Your task to perform on an android device: open wifi settings Image 0: 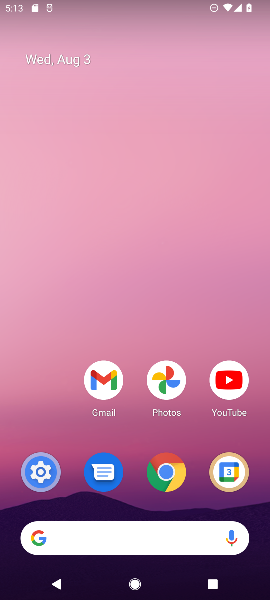
Step 0: drag from (203, 497) to (62, 87)
Your task to perform on an android device: open wifi settings Image 1: 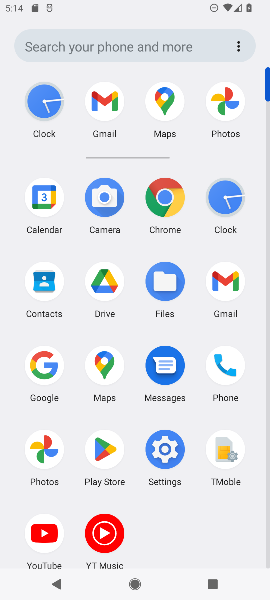
Step 1: click (170, 460)
Your task to perform on an android device: open wifi settings Image 2: 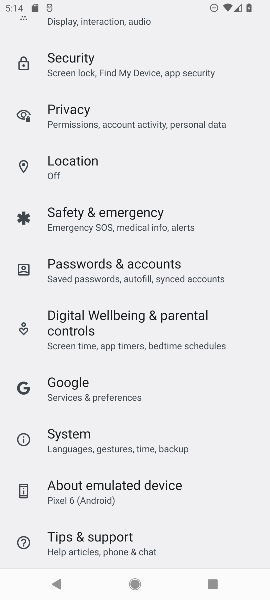
Step 2: drag from (67, 97) to (186, 476)
Your task to perform on an android device: open wifi settings Image 3: 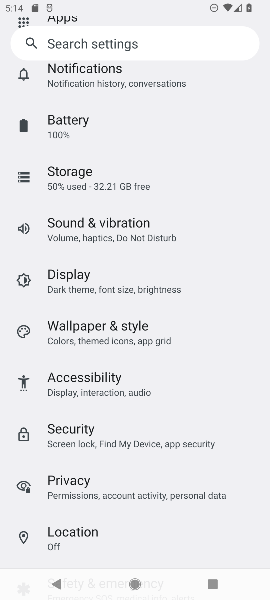
Step 3: drag from (111, 161) to (152, 537)
Your task to perform on an android device: open wifi settings Image 4: 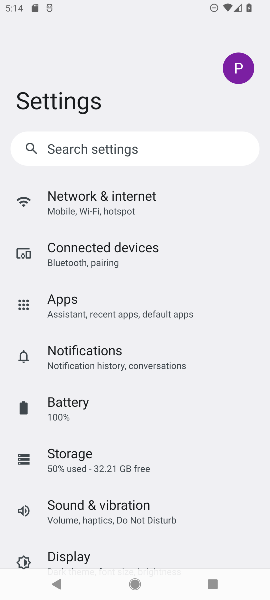
Step 4: click (72, 198)
Your task to perform on an android device: open wifi settings Image 5: 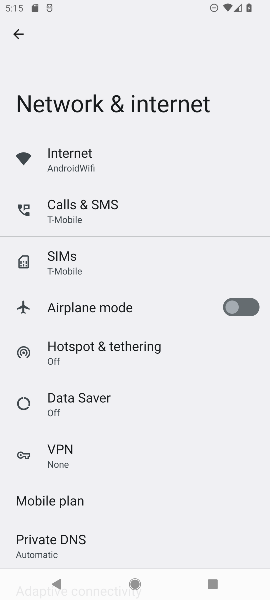
Step 5: task complete